Your task to perform on an android device: Open Youtube and go to the subscriptions tab Image 0: 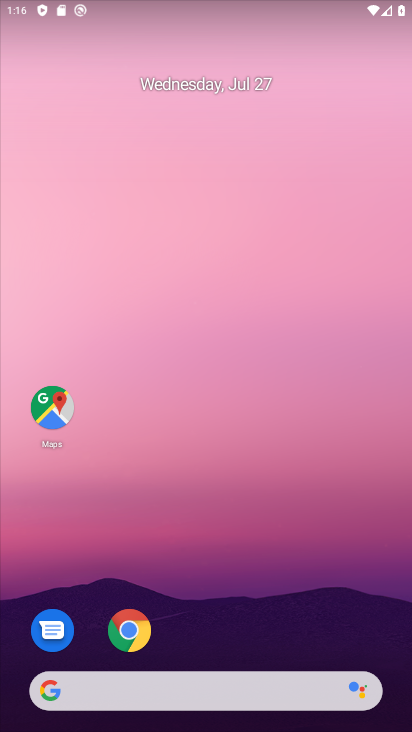
Step 0: click (199, 671)
Your task to perform on an android device: Open Youtube and go to the subscriptions tab Image 1: 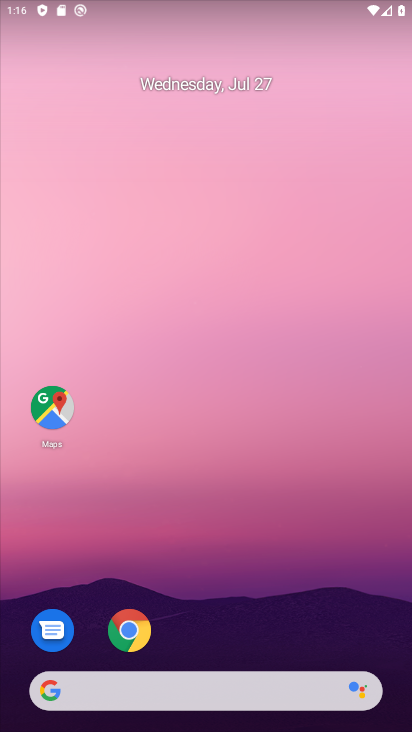
Step 1: drag from (212, 650) to (207, 555)
Your task to perform on an android device: Open Youtube and go to the subscriptions tab Image 2: 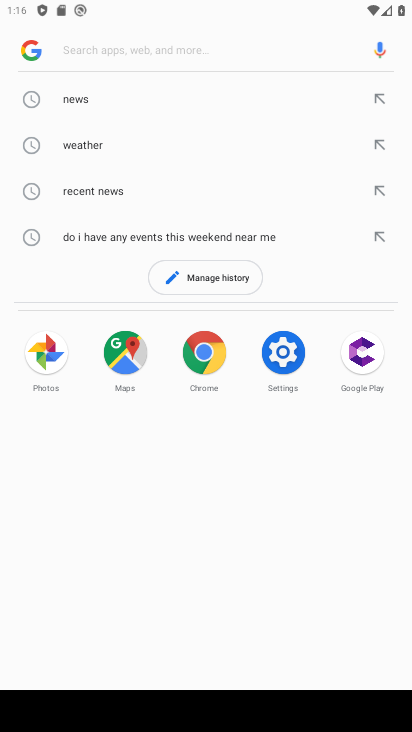
Step 2: press home button
Your task to perform on an android device: Open Youtube and go to the subscriptions tab Image 3: 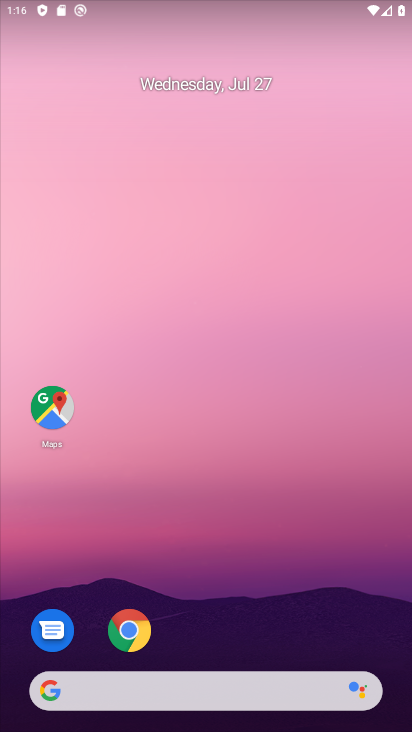
Step 3: drag from (214, 574) to (214, 525)
Your task to perform on an android device: Open Youtube and go to the subscriptions tab Image 4: 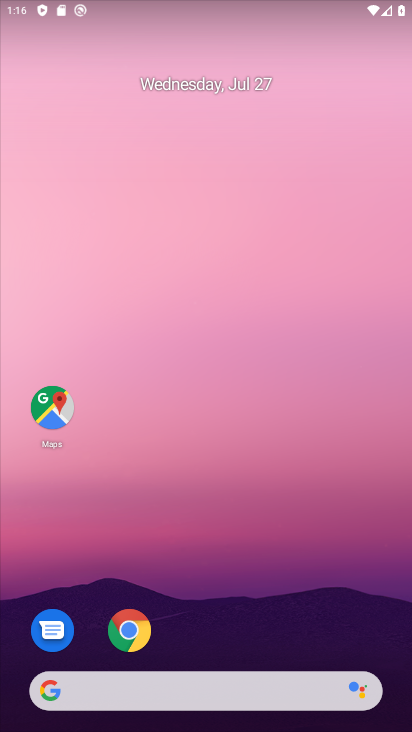
Step 4: drag from (237, 625) to (237, 243)
Your task to perform on an android device: Open Youtube and go to the subscriptions tab Image 5: 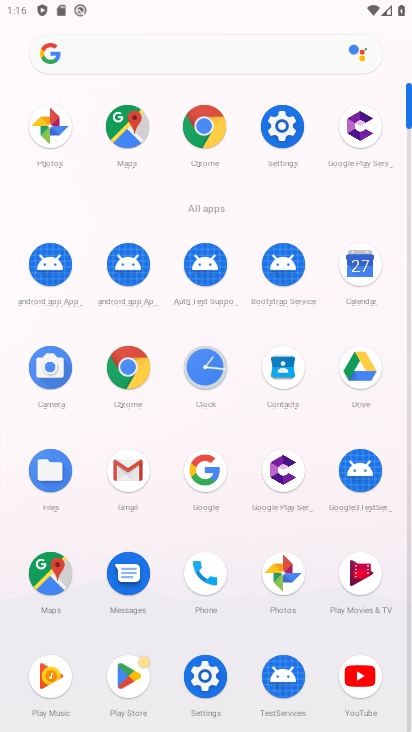
Step 5: click (356, 681)
Your task to perform on an android device: Open Youtube and go to the subscriptions tab Image 6: 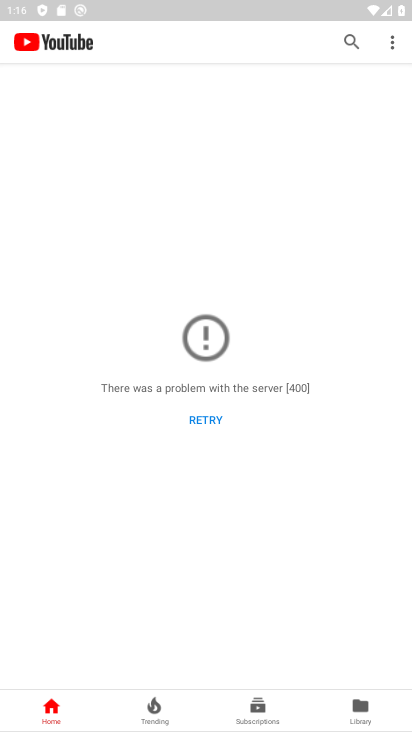
Step 6: click (248, 716)
Your task to perform on an android device: Open Youtube and go to the subscriptions tab Image 7: 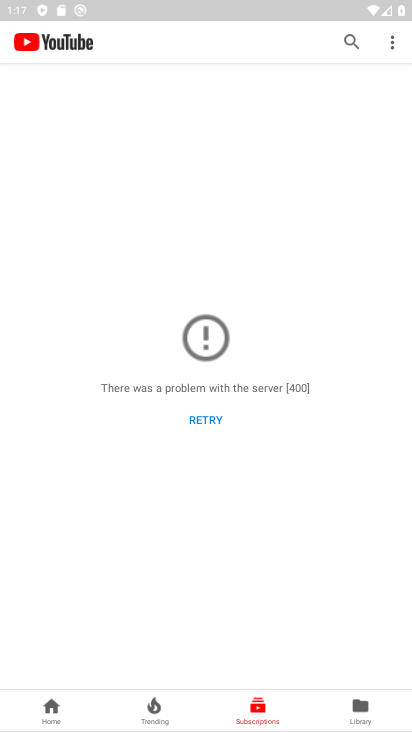
Step 7: click (248, 716)
Your task to perform on an android device: Open Youtube and go to the subscriptions tab Image 8: 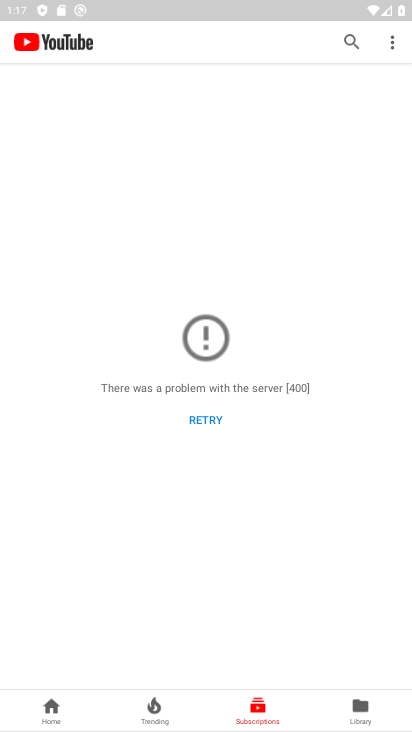
Step 8: task complete